Your task to perform on an android device: Open calendar and show me the first week of next month Image 0: 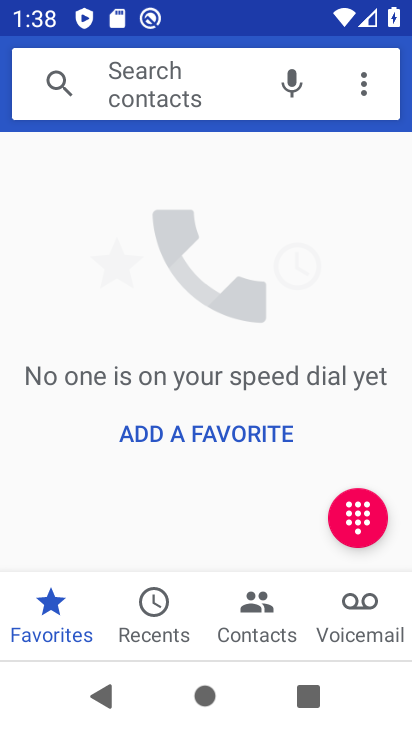
Step 0: press back button
Your task to perform on an android device: Open calendar and show me the first week of next month Image 1: 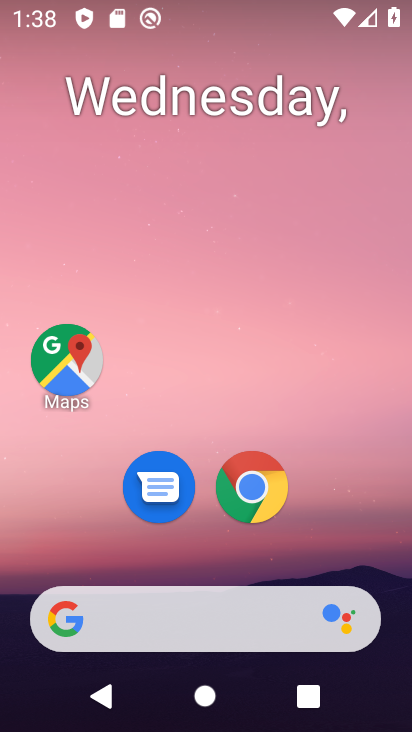
Step 1: drag from (88, 536) to (245, 13)
Your task to perform on an android device: Open calendar and show me the first week of next month Image 2: 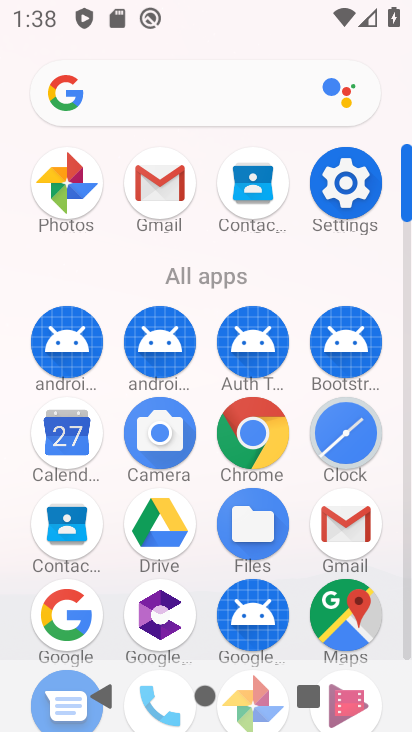
Step 2: click (64, 445)
Your task to perform on an android device: Open calendar and show me the first week of next month Image 3: 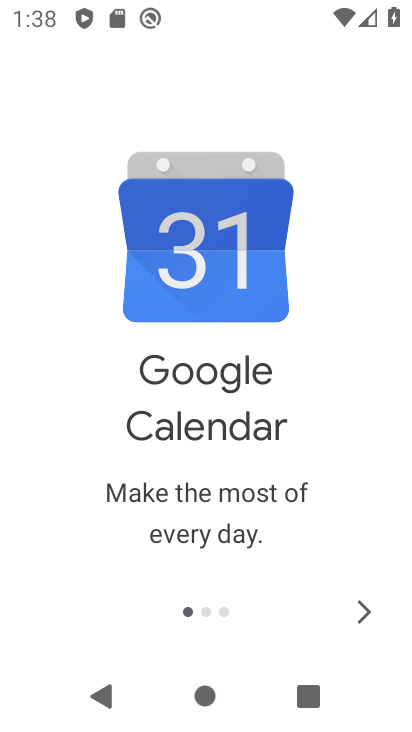
Step 3: click (357, 619)
Your task to perform on an android device: Open calendar and show me the first week of next month Image 4: 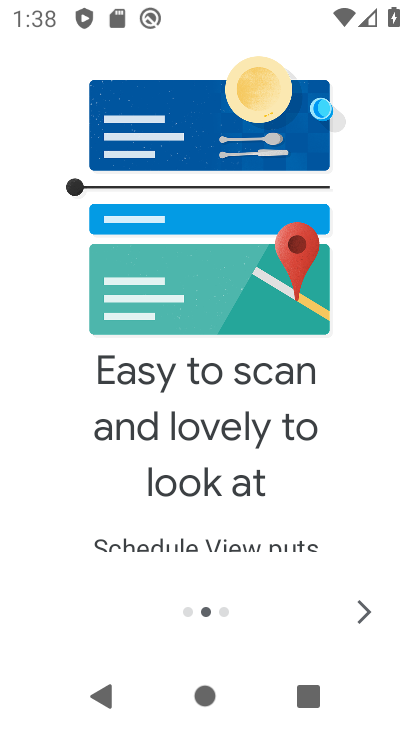
Step 4: click (372, 608)
Your task to perform on an android device: Open calendar and show me the first week of next month Image 5: 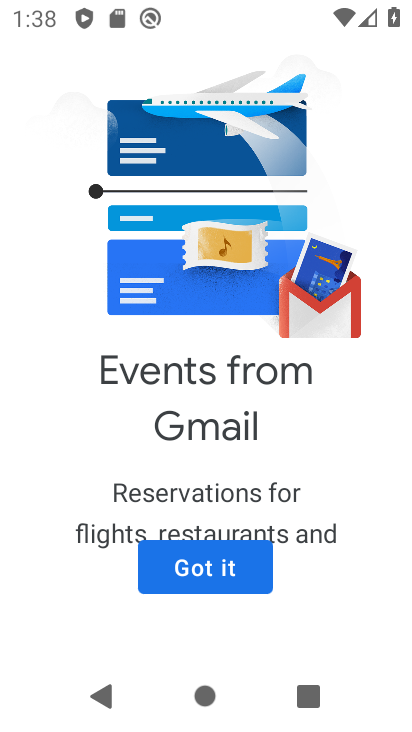
Step 5: click (228, 574)
Your task to perform on an android device: Open calendar and show me the first week of next month Image 6: 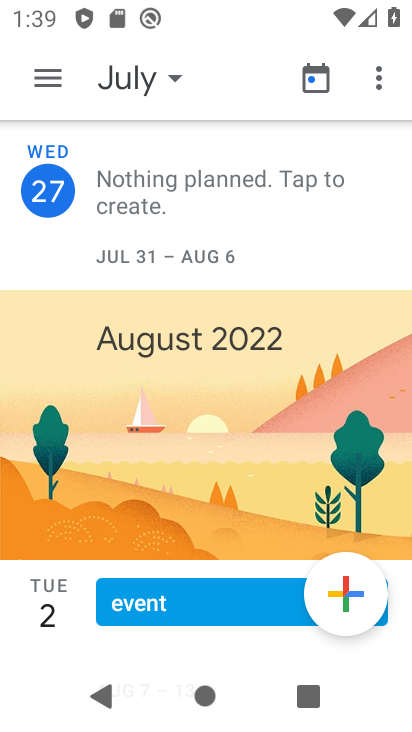
Step 6: click (159, 84)
Your task to perform on an android device: Open calendar and show me the first week of next month Image 7: 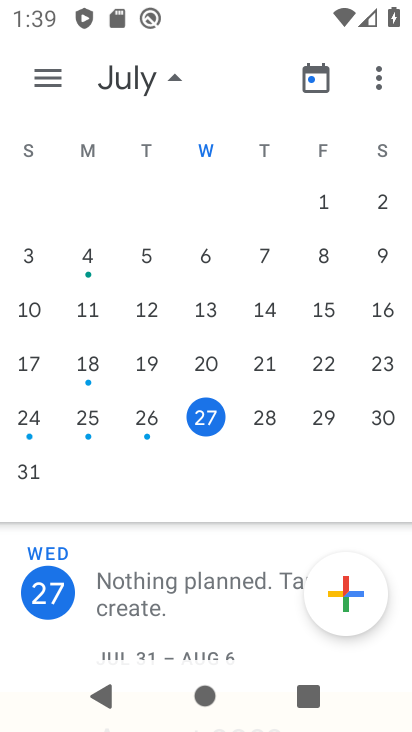
Step 7: drag from (376, 330) to (26, 318)
Your task to perform on an android device: Open calendar and show me the first week of next month Image 8: 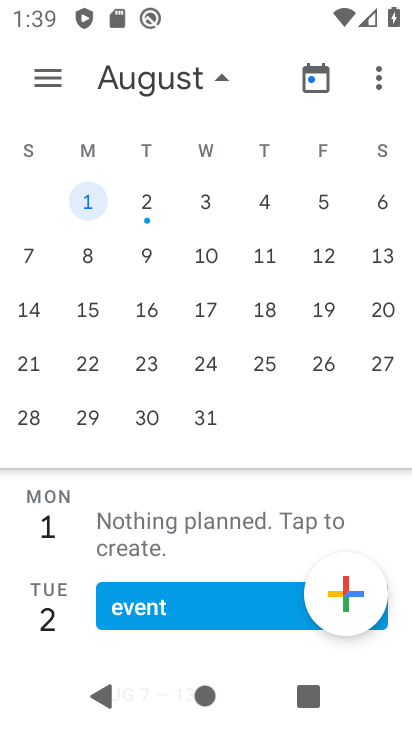
Step 8: click (77, 195)
Your task to perform on an android device: Open calendar and show me the first week of next month Image 9: 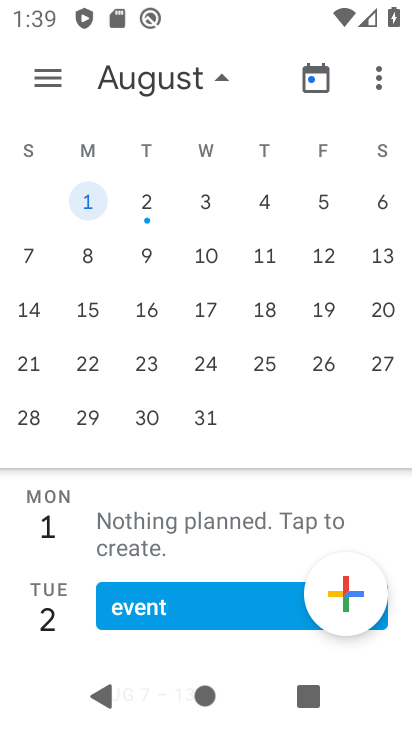
Step 9: task complete